Your task to perform on an android device: open chrome and create a bookmark for the current page Image 0: 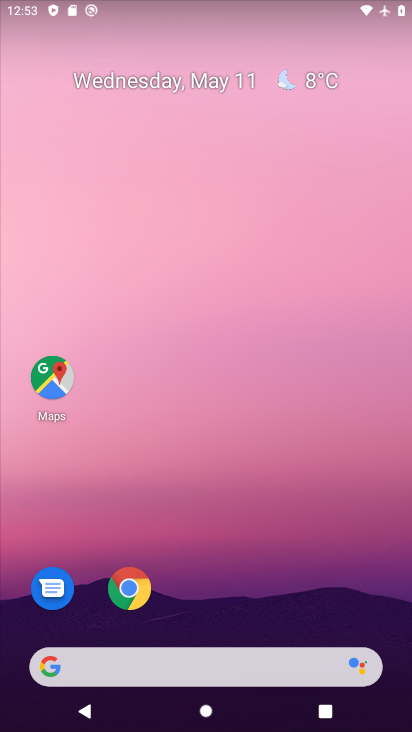
Step 0: click (128, 597)
Your task to perform on an android device: open chrome and create a bookmark for the current page Image 1: 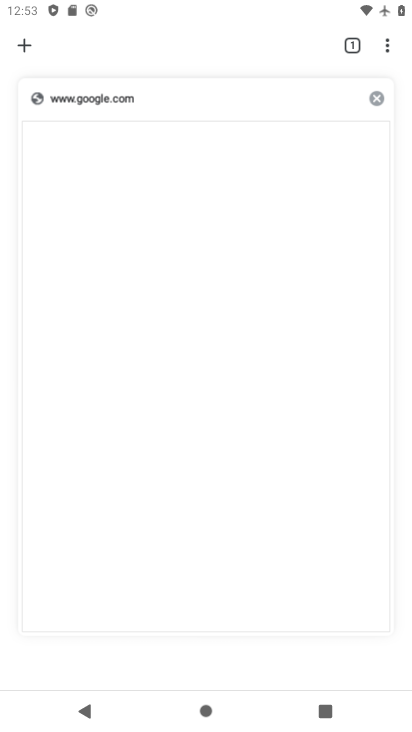
Step 1: click (257, 222)
Your task to perform on an android device: open chrome and create a bookmark for the current page Image 2: 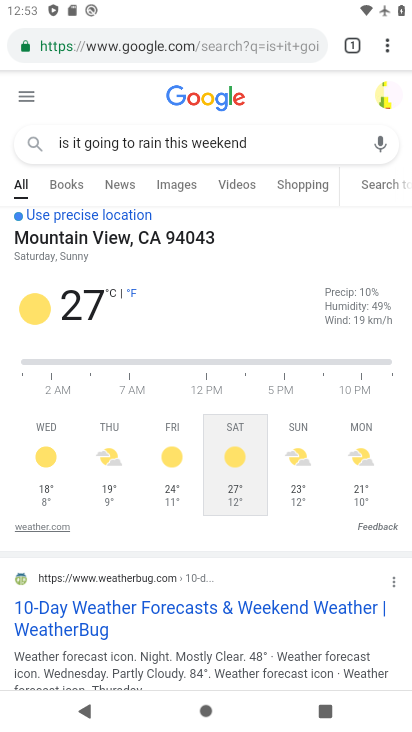
Step 2: task complete